Your task to perform on an android device: move an email to a new category in the gmail app Image 0: 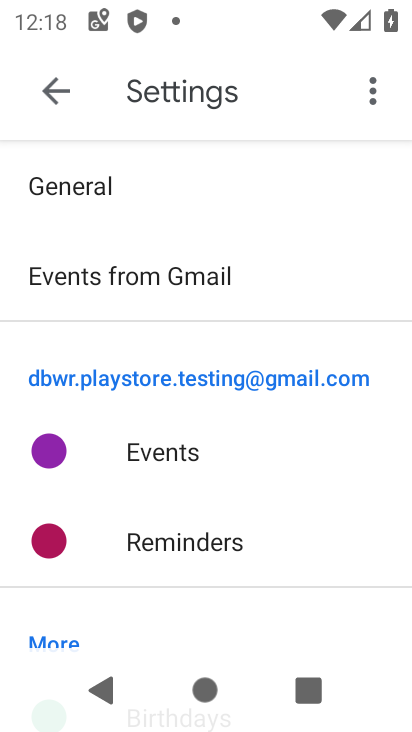
Step 0: press home button
Your task to perform on an android device: move an email to a new category in the gmail app Image 1: 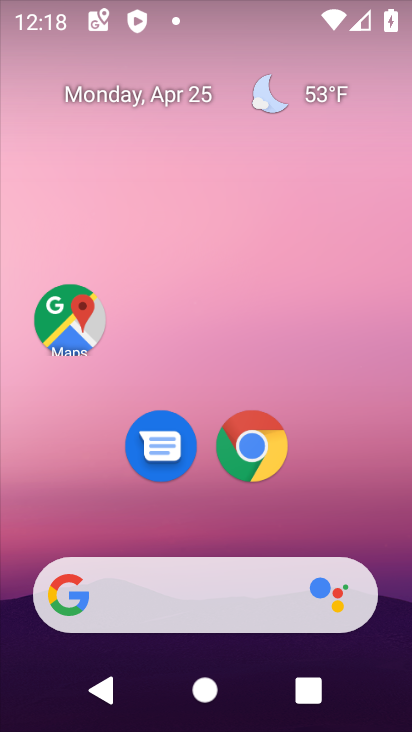
Step 1: drag from (251, 510) to (266, 0)
Your task to perform on an android device: move an email to a new category in the gmail app Image 2: 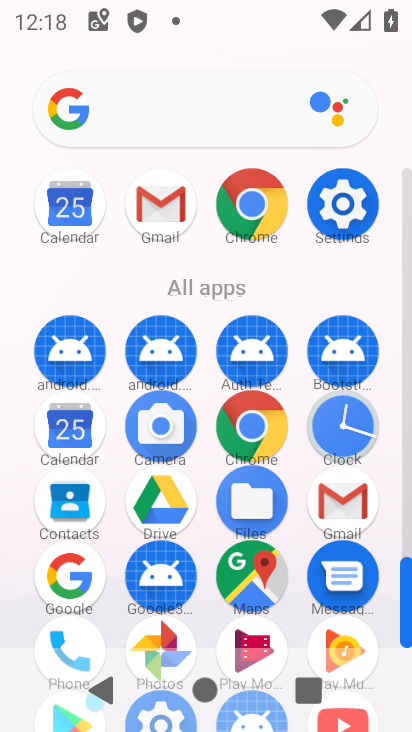
Step 2: click (358, 496)
Your task to perform on an android device: move an email to a new category in the gmail app Image 3: 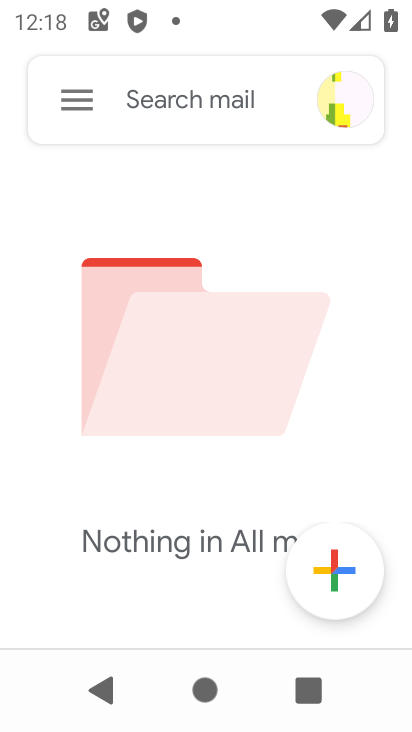
Step 3: click (74, 104)
Your task to perform on an android device: move an email to a new category in the gmail app Image 4: 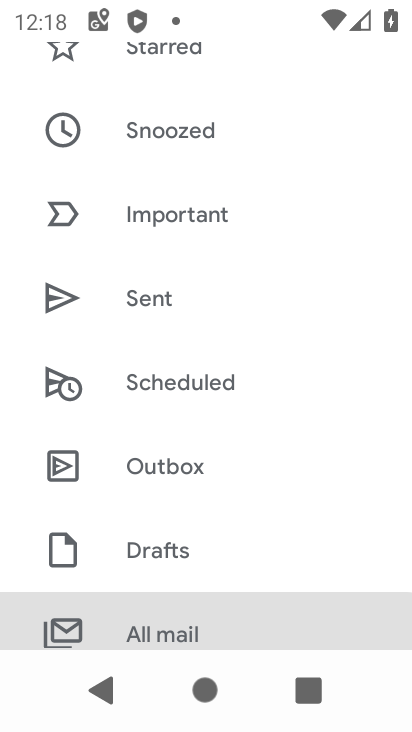
Step 4: click (152, 627)
Your task to perform on an android device: move an email to a new category in the gmail app Image 5: 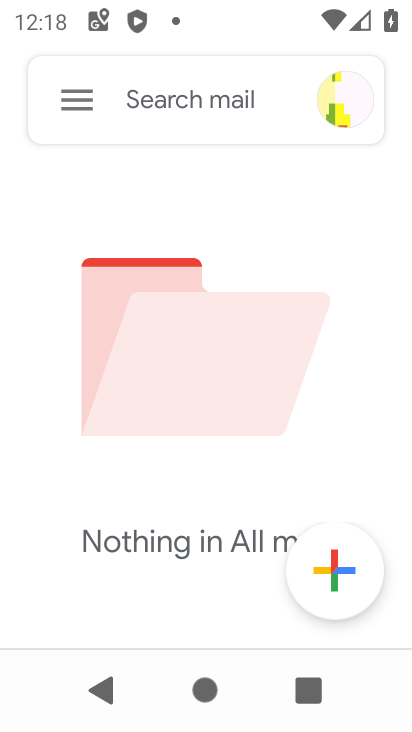
Step 5: task complete